Your task to perform on an android device: Open display settings Image 0: 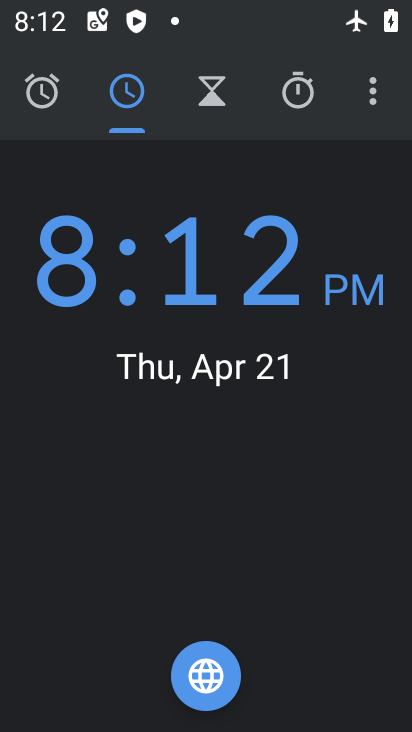
Step 0: press home button
Your task to perform on an android device: Open display settings Image 1: 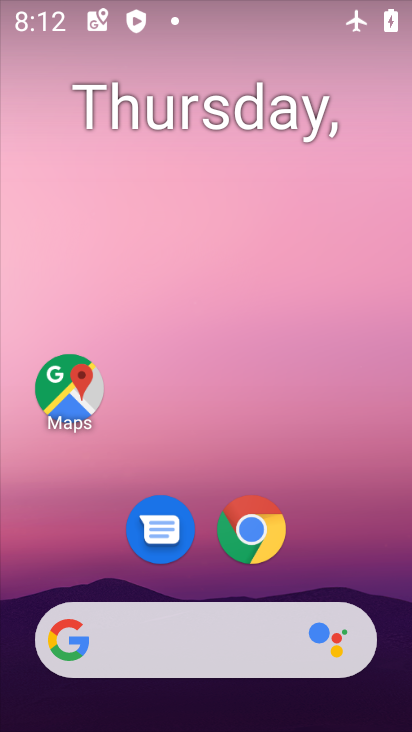
Step 1: drag from (186, 647) to (359, 25)
Your task to perform on an android device: Open display settings Image 2: 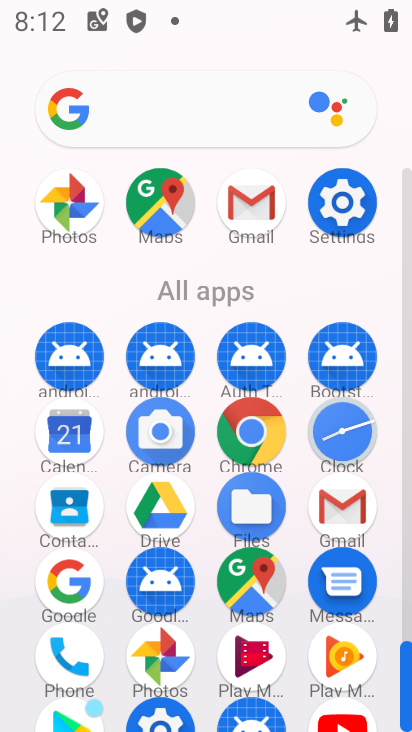
Step 2: click (347, 211)
Your task to perform on an android device: Open display settings Image 3: 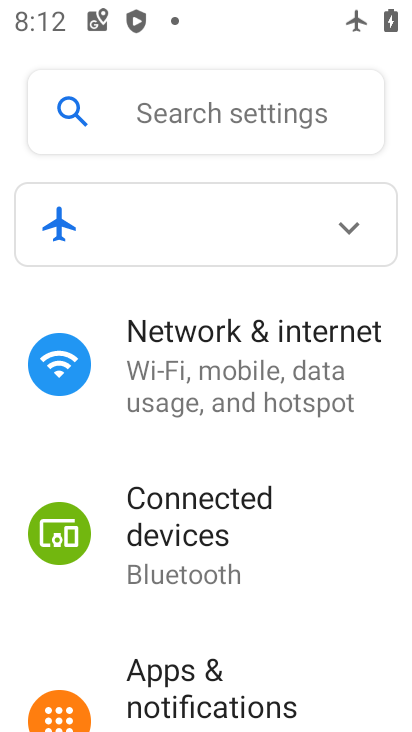
Step 3: drag from (231, 619) to (347, 83)
Your task to perform on an android device: Open display settings Image 4: 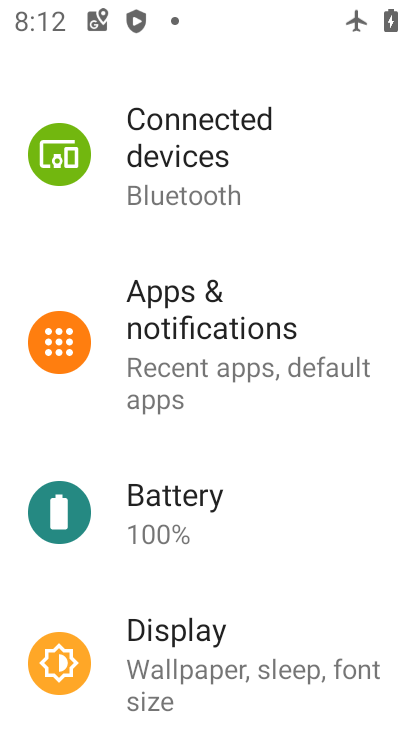
Step 4: click (181, 640)
Your task to perform on an android device: Open display settings Image 5: 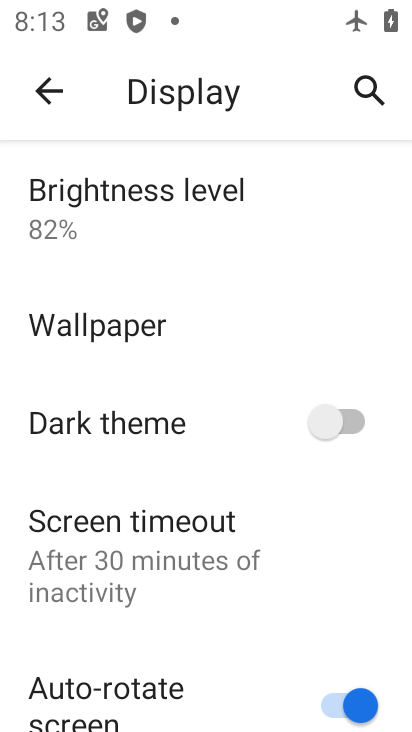
Step 5: task complete